Your task to perform on an android device: What's on my calendar today? Image 0: 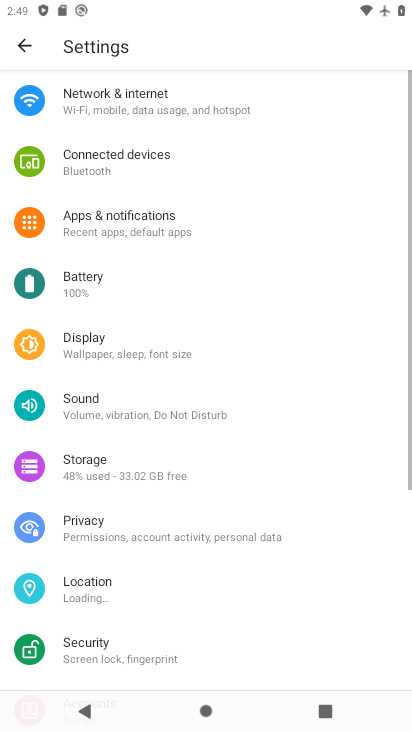
Step 0: press home button
Your task to perform on an android device: What's on my calendar today? Image 1: 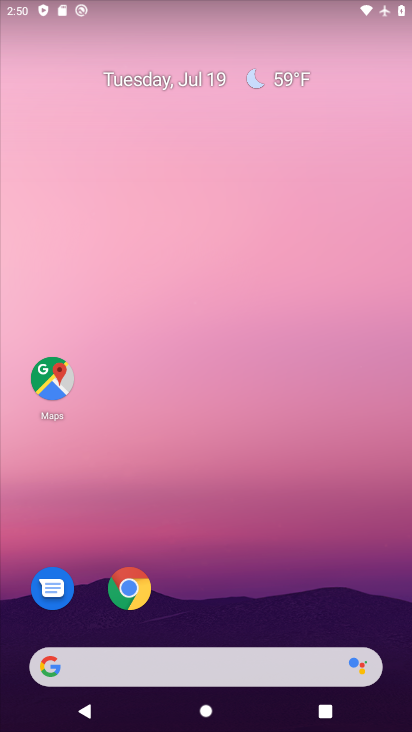
Step 1: drag from (340, 560) to (401, 213)
Your task to perform on an android device: What's on my calendar today? Image 2: 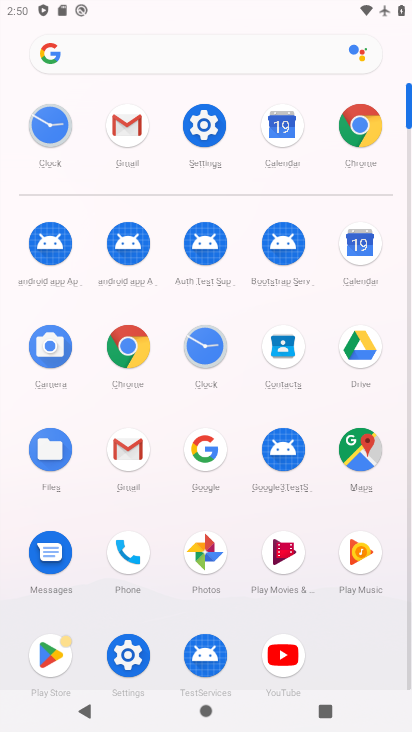
Step 2: click (365, 261)
Your task to perform on an android device: What's on my calendar today? Image 3: 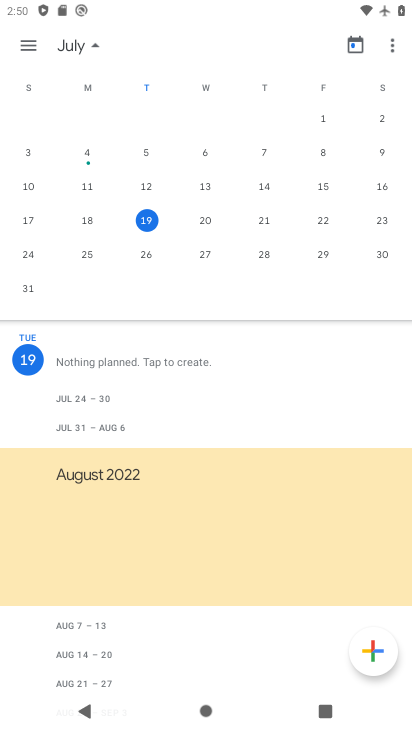
Step 3: click (152, 215)
Your task to perform on an android device: What's on my calendar today? Image 4: 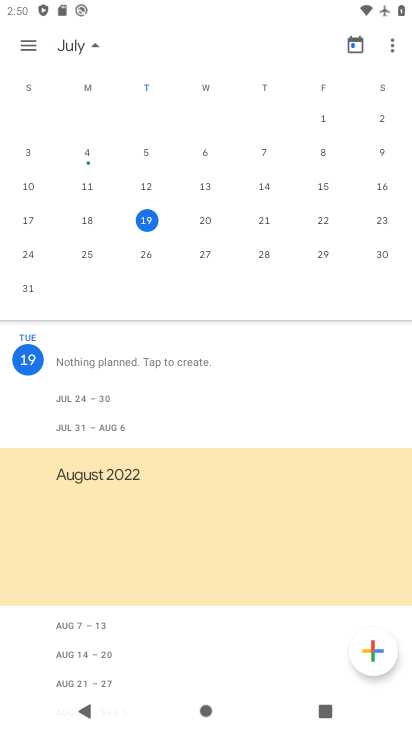
Step 4: task complete